Your task to perform on an android device: find snoozed emails in the gmail app Image 0: 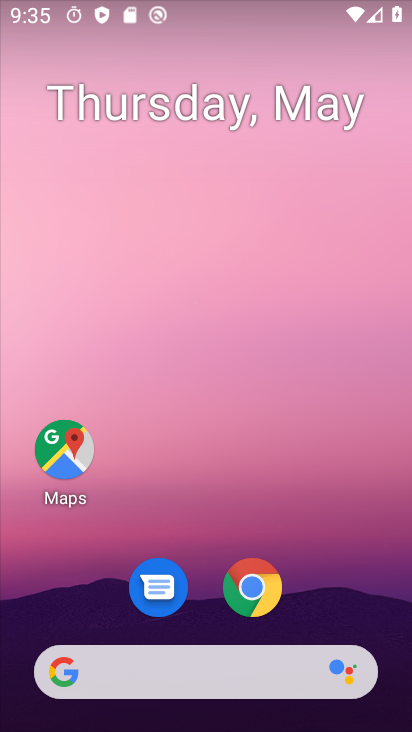
Step 0: drag from (360, 635) to (306, 31)
Your task to perform on an android device: find snoozed emails in the gmail app Image 1: 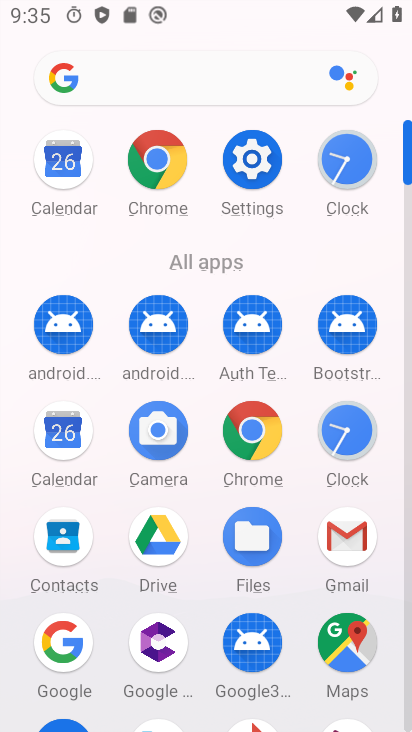
Step 1: click (344, 540)
Your task to perform on an android device: find snoozed emails in the gmail app Image 2: 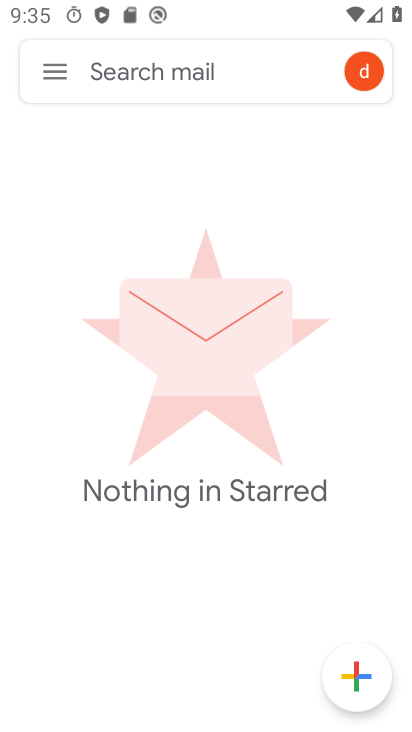
Step 2: click (50, 79)
Your task to perform on an android device: find snoozed emails in the gmail app Image 3: 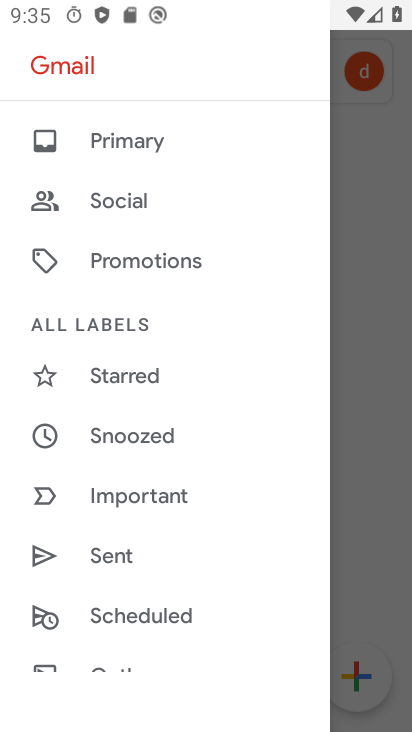
Step 3: click (125, 436)
Your task to perform on an android device: find snoozed emails in the gmail app Image 4: 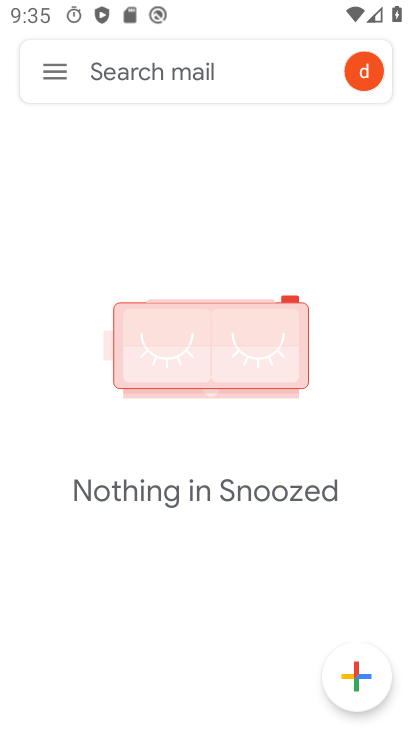
Step 4: task complete